Your task to perform on an android device: set an alarm Image 0: 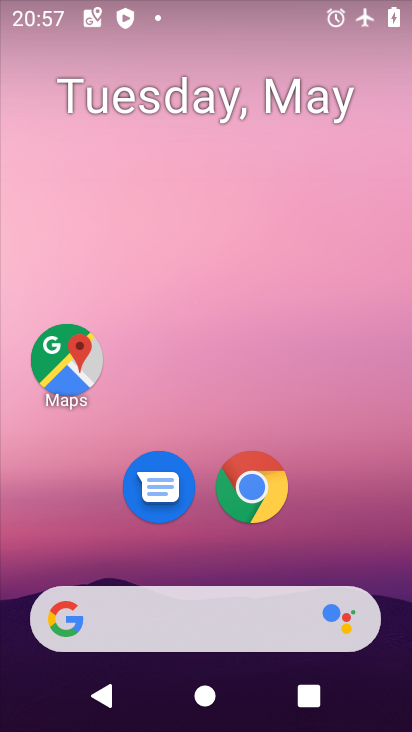
Step 0: drag from (351, 540) to (201, 74)
Your task to perform on an android device: set an alarm Image 1: 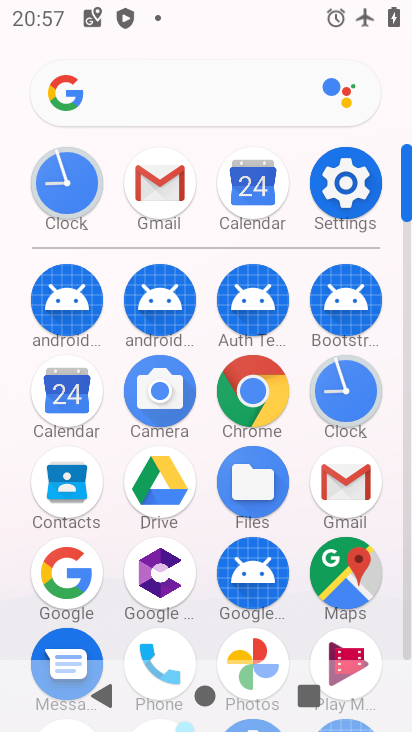
Step 1: click (344, 387)
Your task to perform on an android device: set an alarm Image 2: 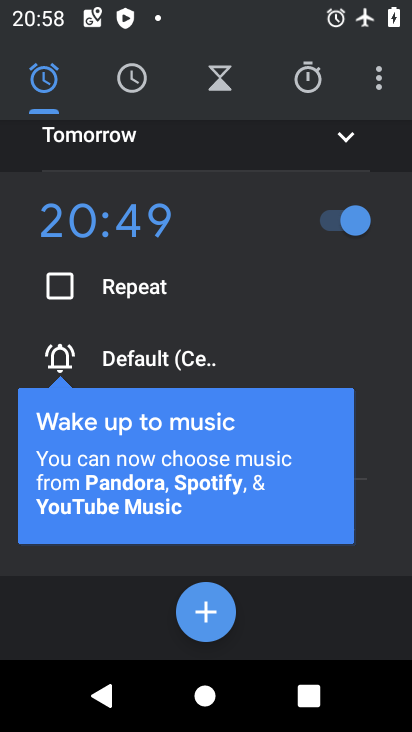
Step 2: click (218, 620)
Your task to perform on an android device: set an alarm Image 3: 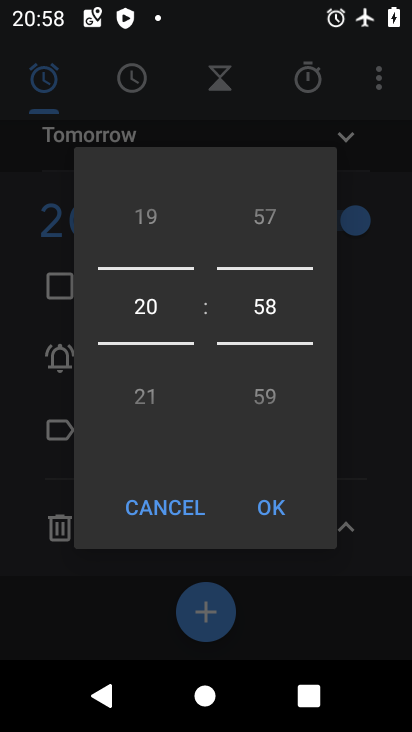
Step 3: click (280, 506)
Your task to perform on an android device: set an alarm Image 4: 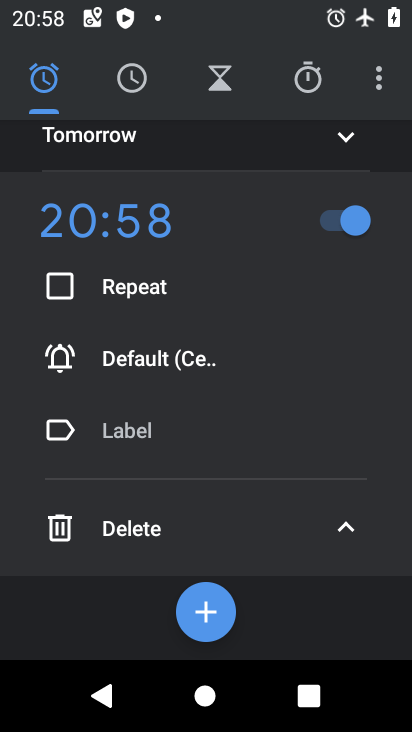
Step 4: task complete